Your task to perform on an android device: visit the assistant section in the google photos Image 0: 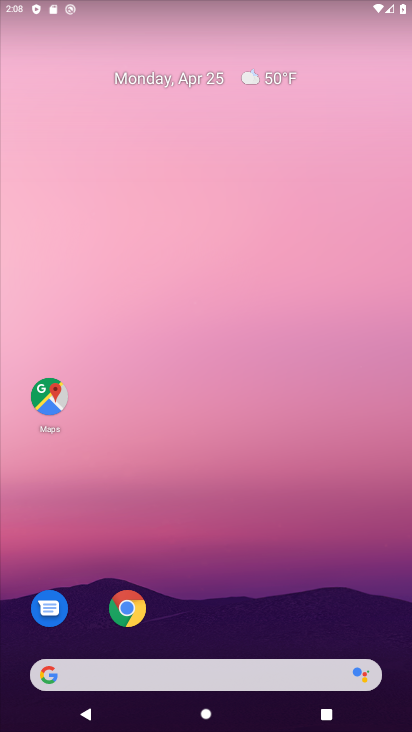
Step 0: drag from (242, 591) to (242, 171)
Your task to perform on an android device: visit the assistant section in the google photos Image 1: 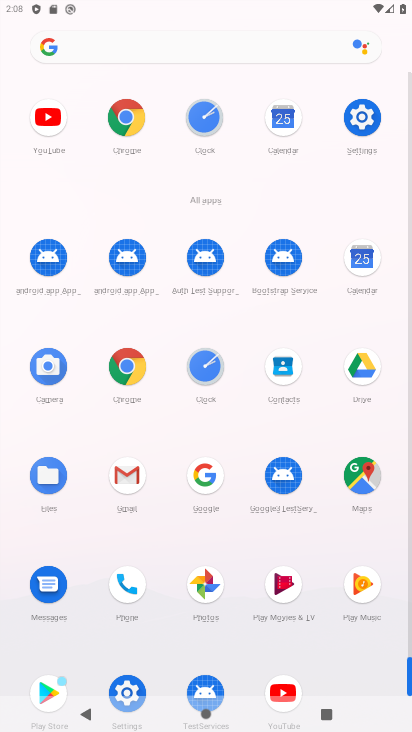
Step 1: click (201, 599)
Your task to perform on an android device: visit the assistant section in the google photos Image 2: 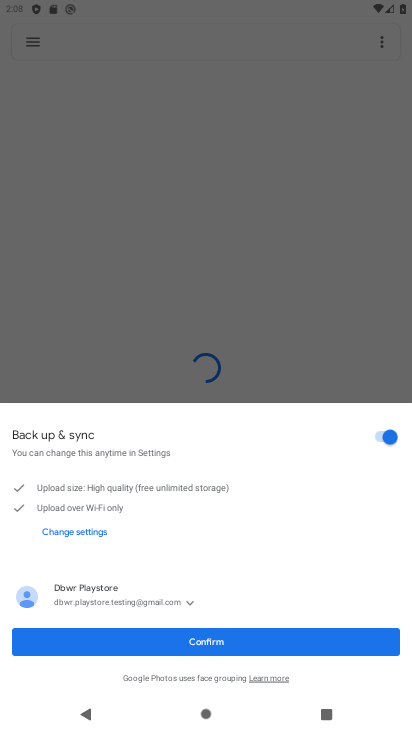
Step 2: click (266, 640)
Your task to perform on an android device: visit the assistant section in the google photos Image 3: 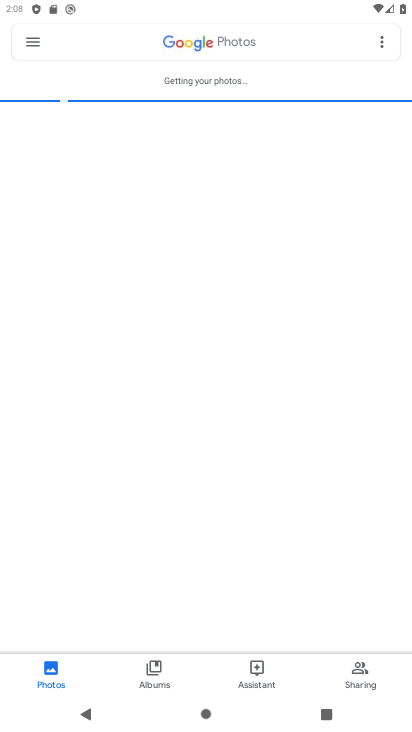
Step 3: click (248, 658)
Your task to perform on an android device: visit the assistant section in the google photos Image 4: 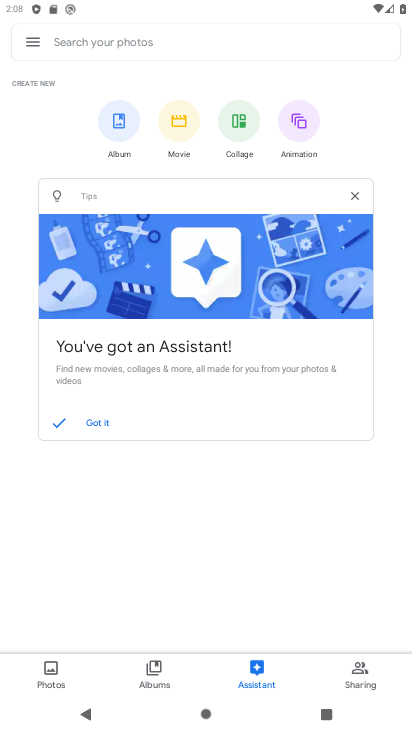
Step 4: task complete